Your task to perform on an android device: remove spam from my inbox in the gmail app Image 0: 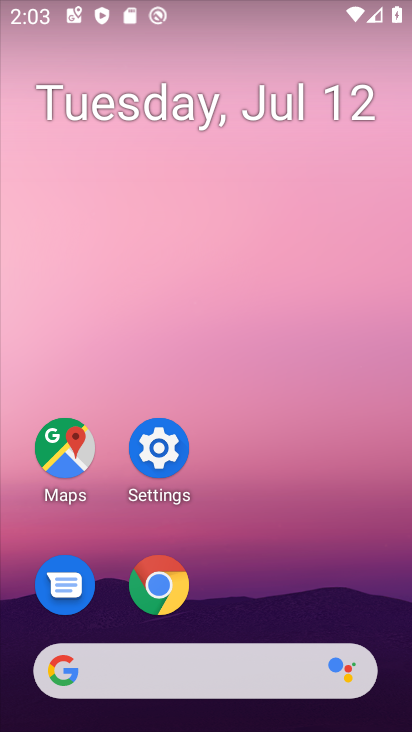
Step 0: click (160, 444)
Your task to perform on an android device: remove spam from my inbox in the gmail app Image 1: 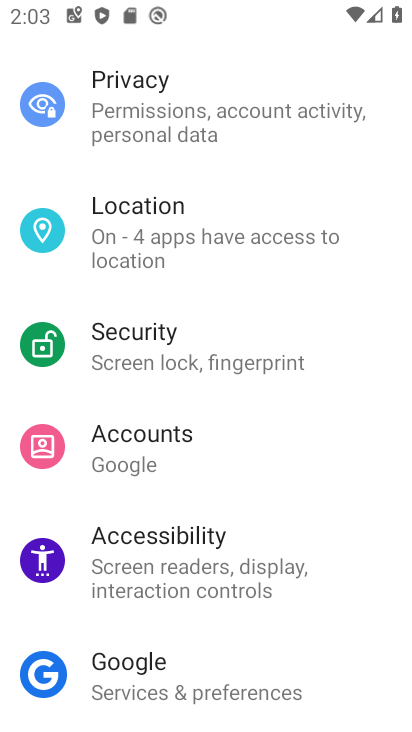
Step 1: drag from (347, 670) to (315, 222)
Your task to perform on an android device: remove spam from my inbox in the gmail app Image 2: 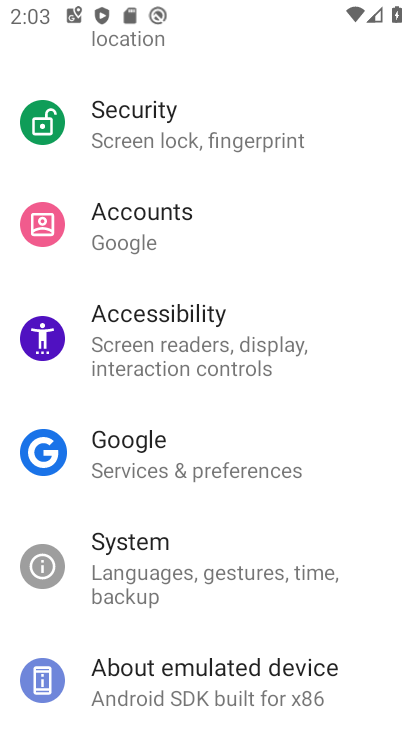
Step 2: drag from (326, 139) to (343, 598)
Your task to perform on an android device: remove spam from my inbox in the gmail app Image 3: 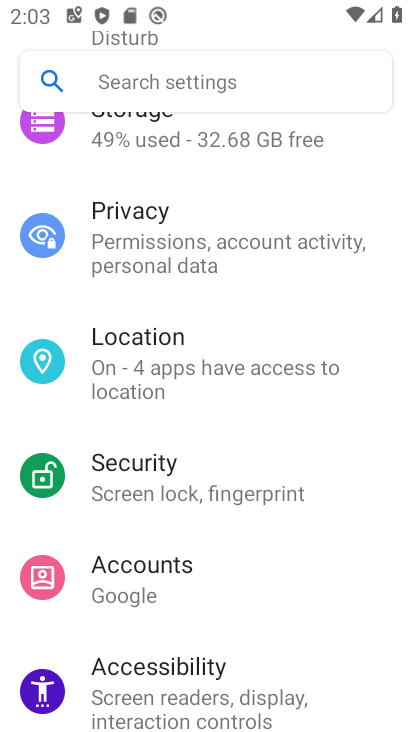
Step 3: drag from (336, 272) to (341, 532)
Your task to perform on an android device: remove spam from my inbox in the gmail app Image 4: 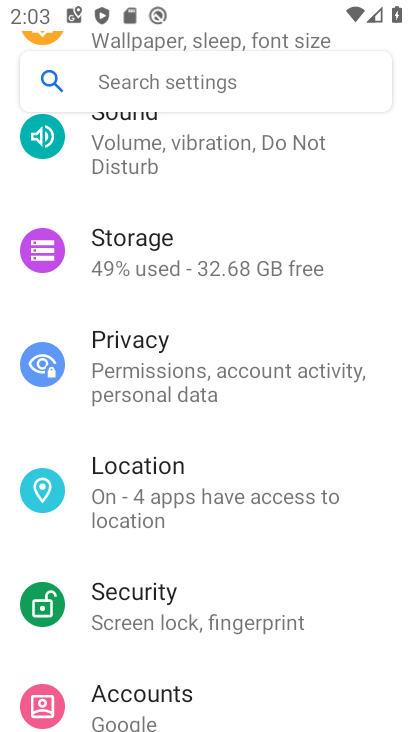
Step 4: click (290, 519)
Your task to perform on an android device: remove spam from my inbox in the gmail app Image 5: 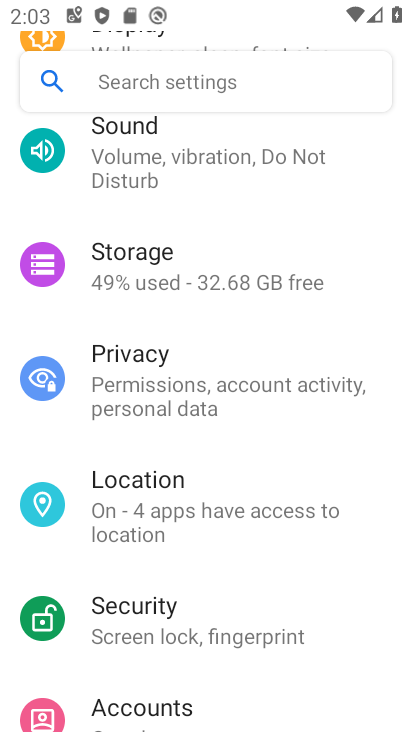
Step 5: drag from (360, 158) to (367, 580)
Your task to perform on an android device: remove spam from my inbox in the gmail app Image 6: 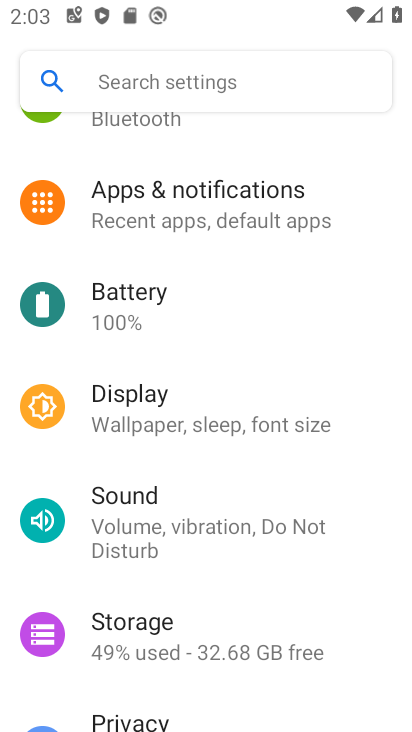
Step 6: click (136, 408)
Your task to perform on an android device: remove spam from my inbox in the gmail app Image 7: 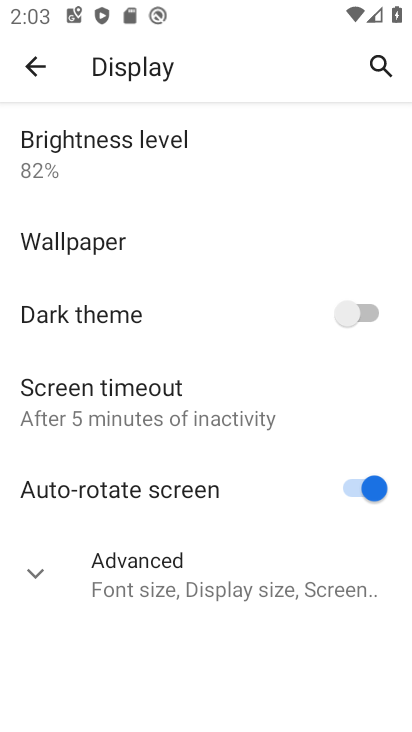
Step 7: click (36, 571)
Your task to perform on an android device: remove spam from my inbox in the gmail app Image 8: 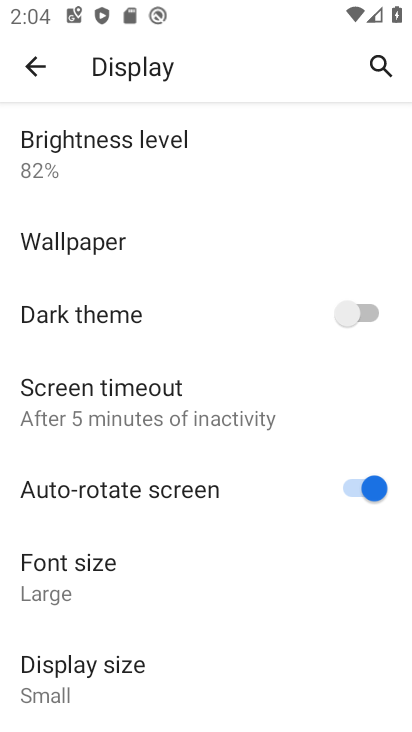
Step 8: click (90, 663)
Your task to perform on an android device: remove spam from my inbox in the gmail app Image 9: 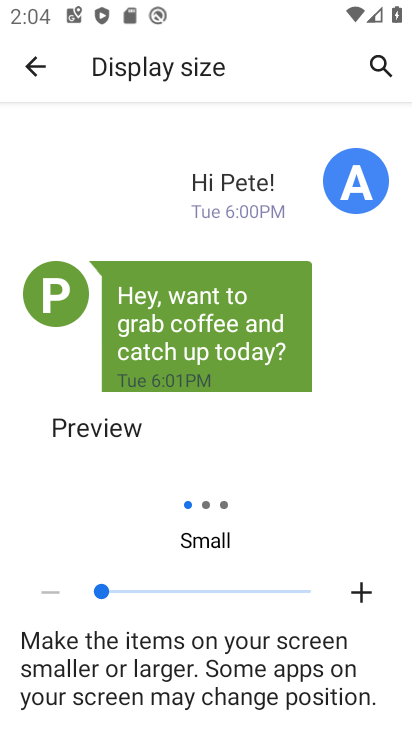
Step 9: click (43, 591)
Your task to perform on an android device: remove spam from my inbox in the gmail app Image 10: 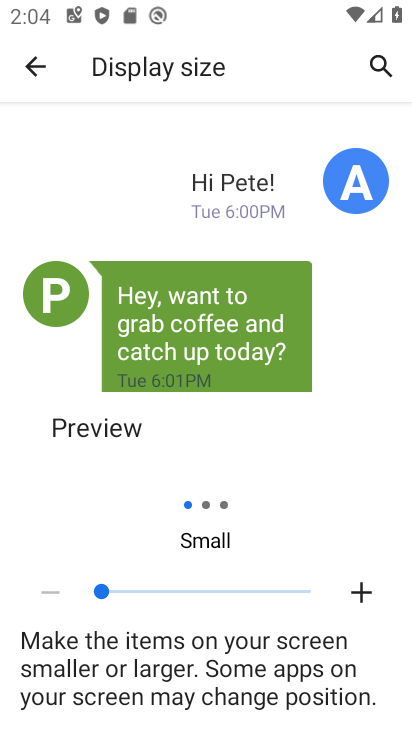
Step 10: click (44, 590)
Your task to perform on an android device: remove spam from my inbox in the gmail app Image 11: 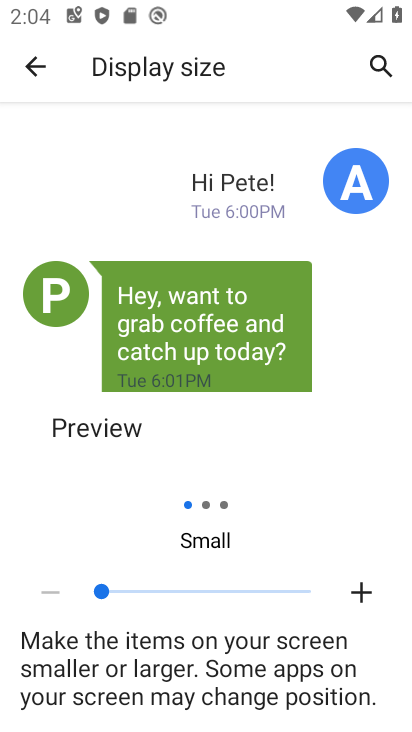
Step 11: drag from (100, 589) to (55, 593)
Your task to perform on an android device: remove spam from my inbox in the gmail app Image 12: 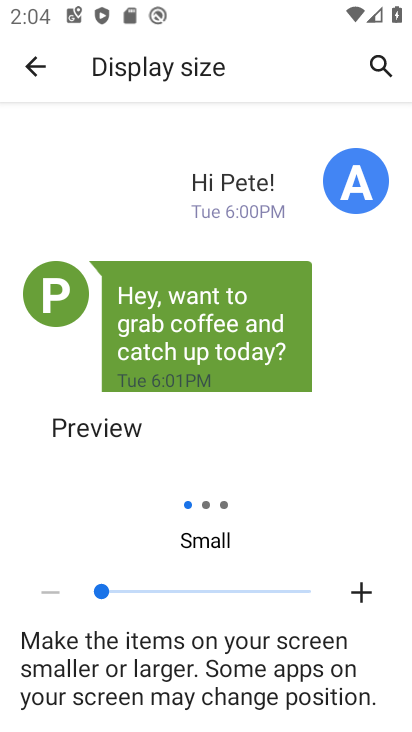
Step 12: click (362, 590)
Your task to perform on an android device: remove spam from my inbox in the gmail app Image 13: 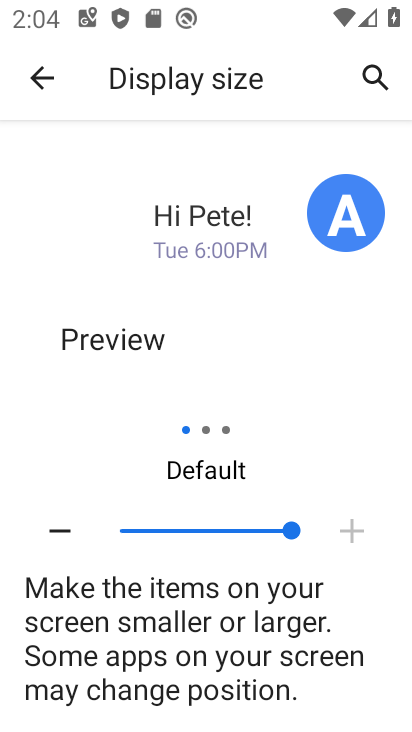
Step 13: click (41, 64)
Your task to perform on an android device: remove spam from my inbox in the gmail app Image 14: 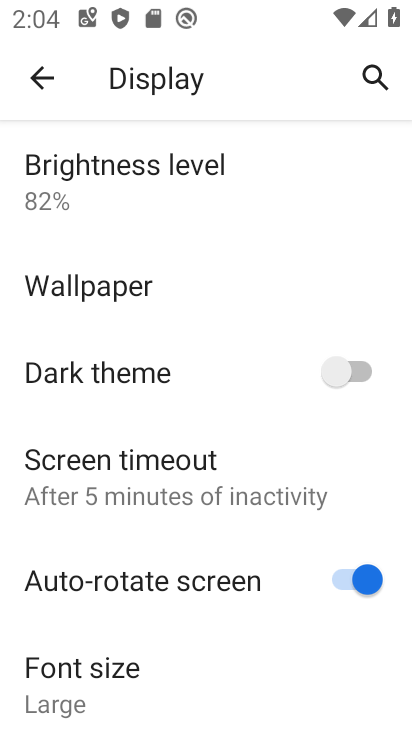
Step 14: click (34, 80)
Your task to perform on an android device: remove spam from my inbox in the gmail app Image 15: 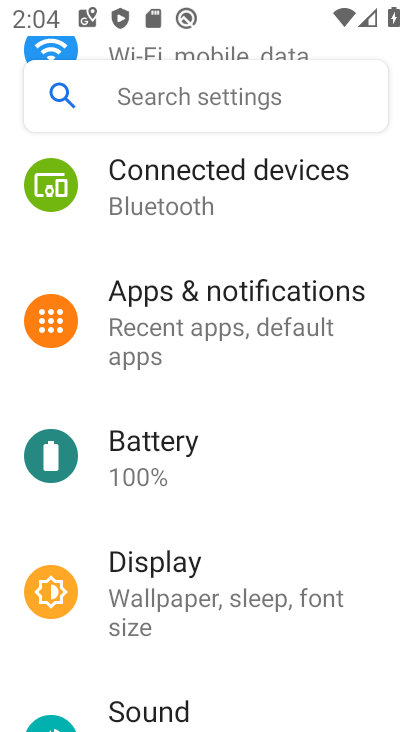
Step 15: click (164, 582)
Your task to perform on an android device: remove spam from my inbox in the gmail app Image 16: 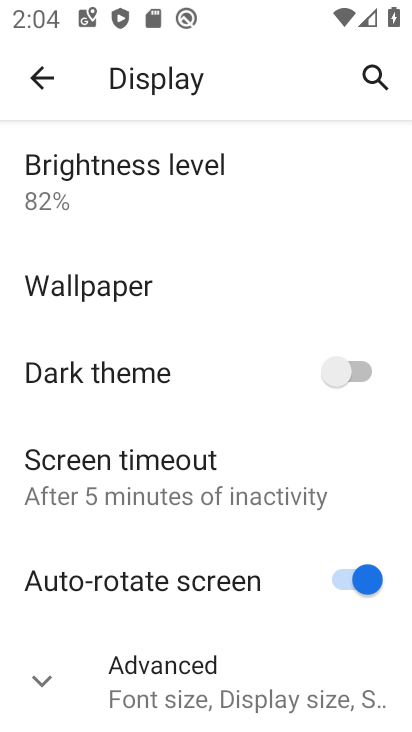
Step 16: click (58, 681)
Your task to perform on an android device: remove spam from my inbox in the gmail app Image 17: 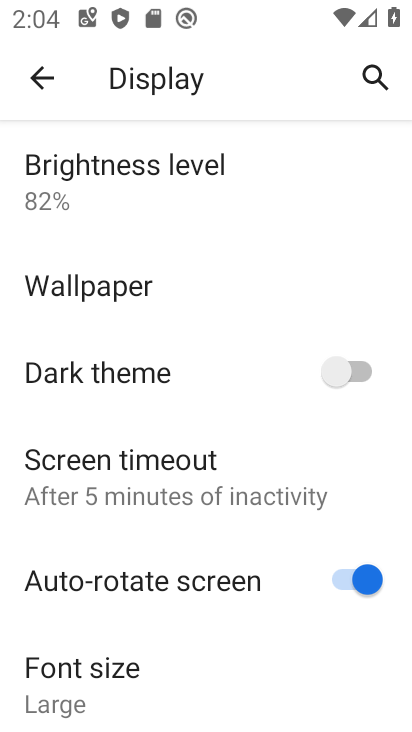
Step 17: drag from (177, 686) to (156, 264)
Your task to perform on an android device: remove spam from my inbox in the gmail app Image 18: 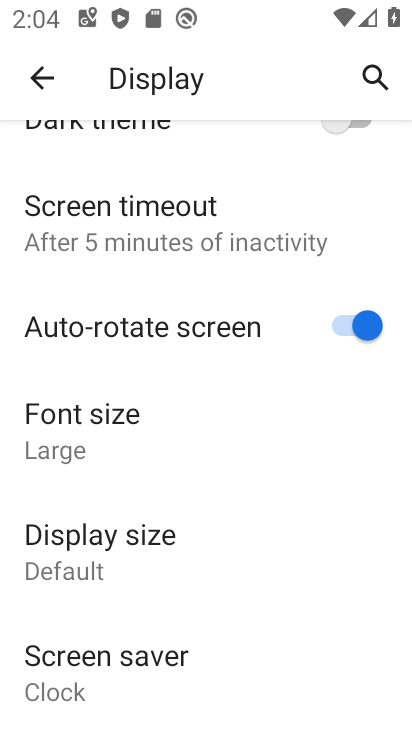
Step 18: click (89, 549)
Your task to perform on an android device: remove spam from my inbox in the gmail app Image 19: 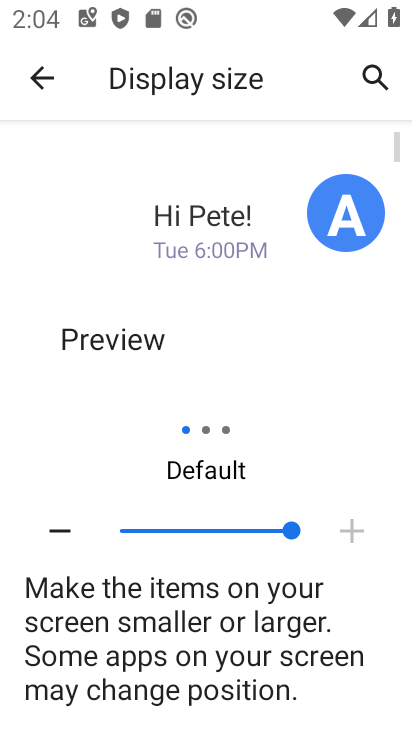
Step 19: click (175, 526)
Your task to perform on an android device: remove spam from my inbox in the gmail app Image 20: 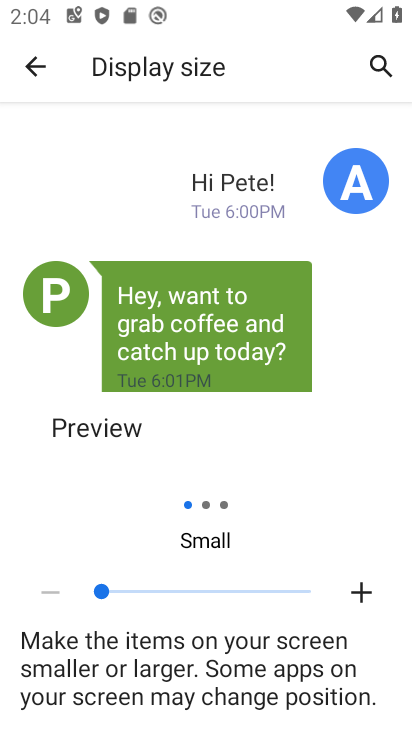
Step 20: click (35, 68)
Your task to perform on an android device: remove spam from my inbox in the gmail app Image 21: 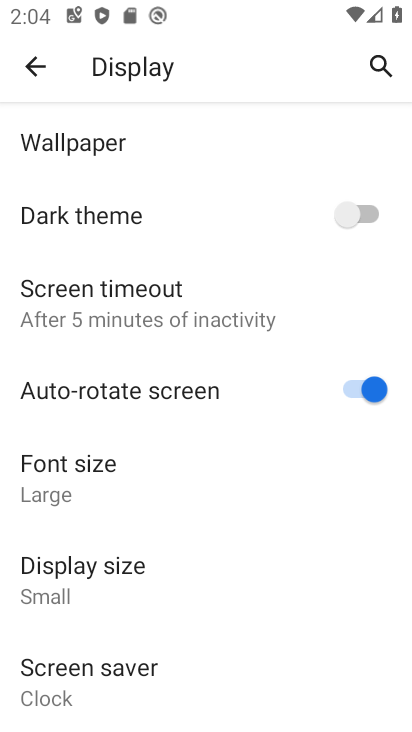
Step 21: click (31, 61)
Your task to perform on an android device: remove spam from my inbox in the gmail app Image 22: 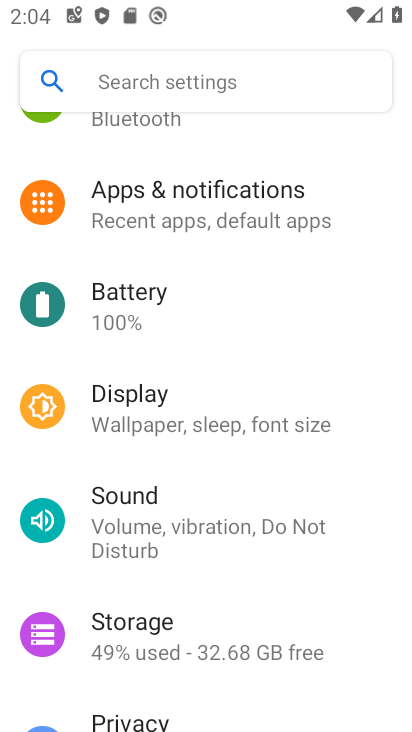
Step 22: press back button
Your task to perform on an android device: remove spam from my inbox in the gmail app Image 23: 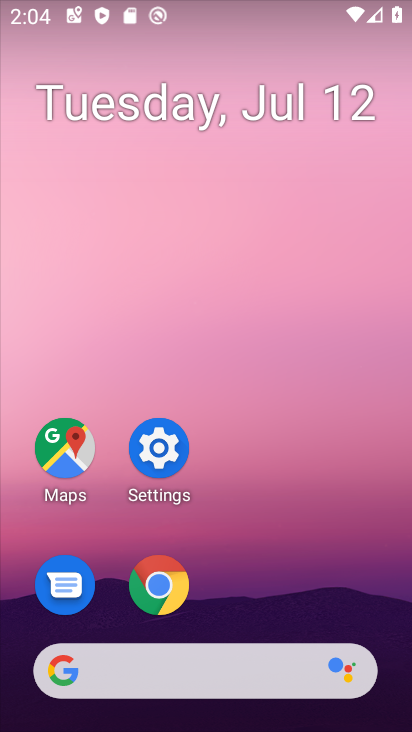
Step 23: drag from (372, 469) to (304, 123)
Your task to perform on an android device: remove spam from my inbox in the gmail app Image 24: 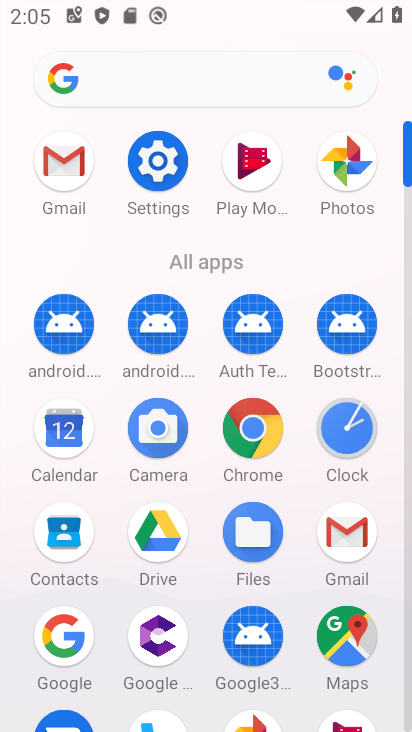
Step 24: click (351, 534)
Your task to perform on an android device: remove spam from my inbox in the gmail app Image 25: 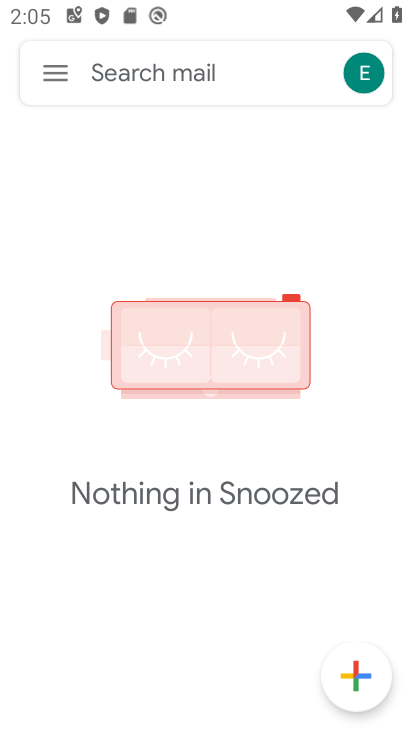
Step 25: click (54, 78)
Your task to perform on an android device: remove spam from my inbox in the gmail app Image 26: 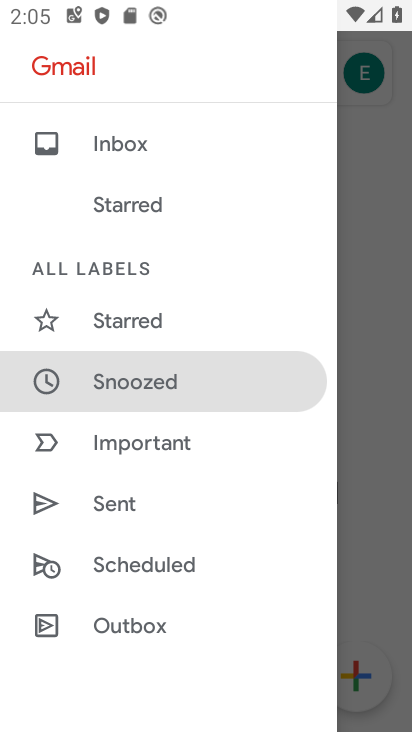
Step 26: drag from (247, 623) to (219, 243)
Your task to perform on an android device: remove spam from my inbox in the gmail app Image 27: 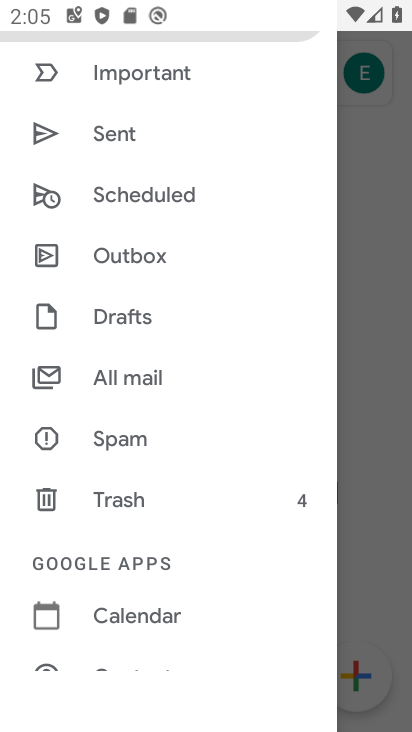
Step 27: drag from (222, 607) to (208, 285)
Your task to perform on an android device: remove spam from my inbox in the gmail app Image 28: 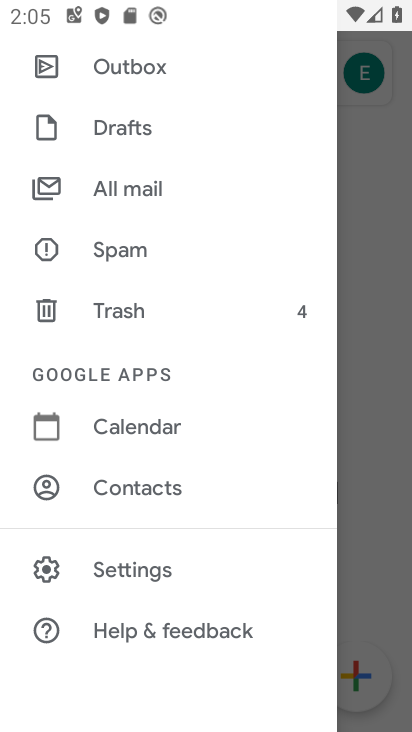
Step 28: click (124, 251)
Your task to perform on an android device: remove spam from my inbox in the gmail app Image 29: 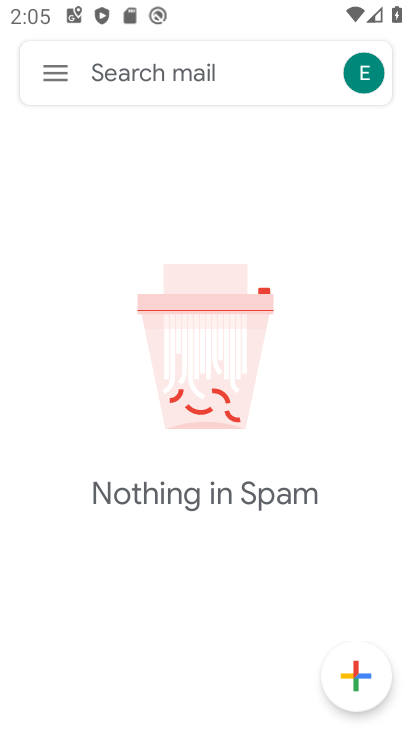
Step 29: task complete